Your task to perform on an android device: change the upload size in google photos Image 0: 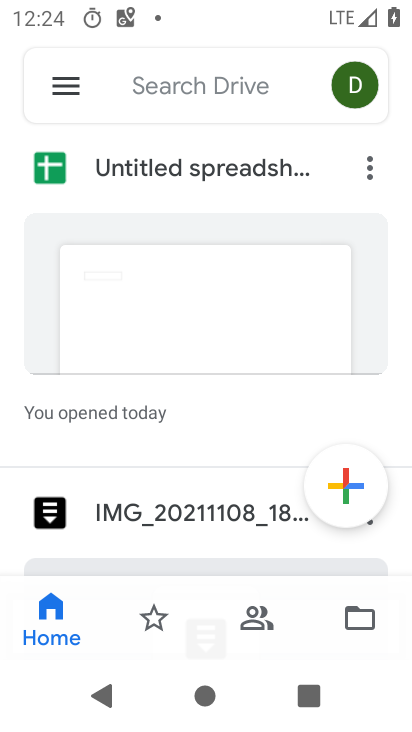
Step 0: press home button
Your task to perform on an android device: change the upload size in google photos Image 1: 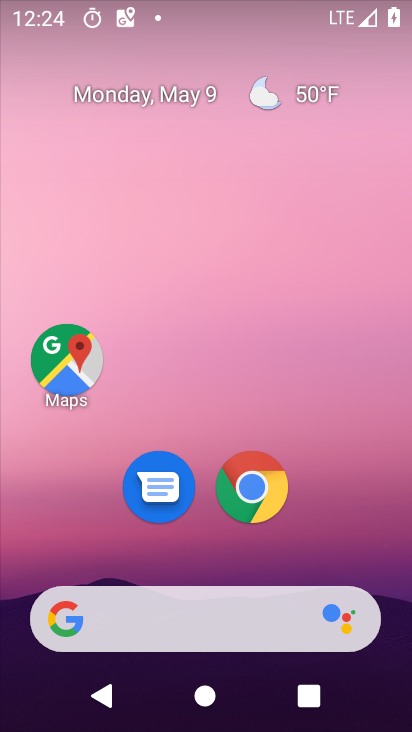
Step 1: drag from (362, 507) to (362, 163)
Your task to perform on an android device: change the upload size in google photos Image 2: 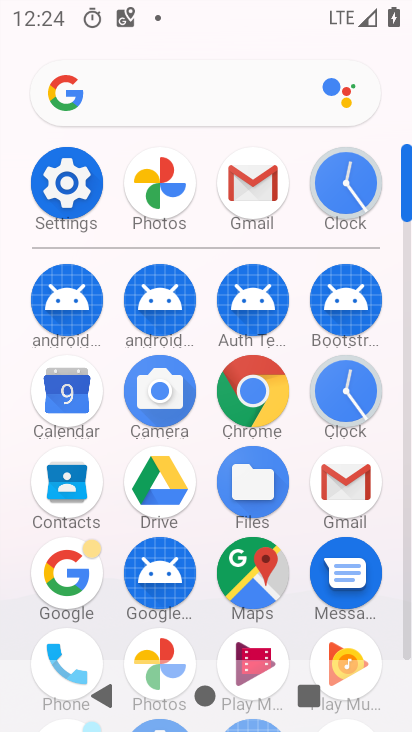
Step 2: click (156, 192)
Your task to perform on an android device: change the upload size in google photos Image 3: 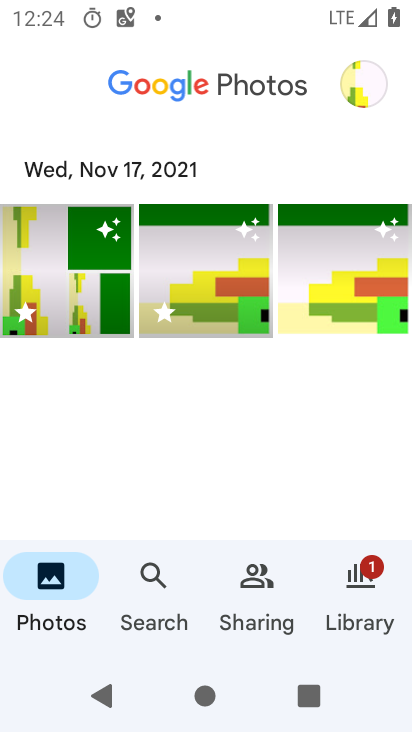
Step 3: drag from (216, 488) to (214, 105)
Your task to perform on an android device: change the upload size in google photos Image 4: 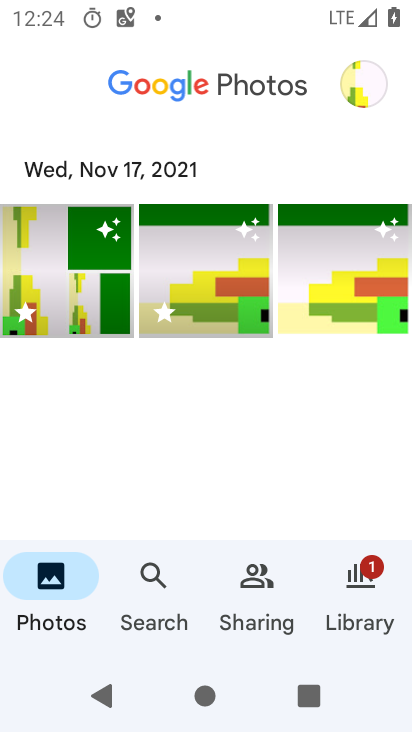
Step 4: click (356, 87)
Your task to perform on an android device: change the upload size in google photos Image 5: 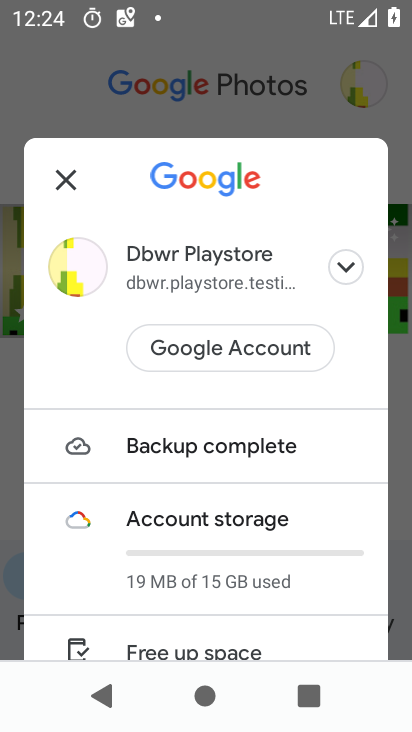
Step 5: click (274, 460)
Your task to perform on an android device: change the upload size in google photos Image 6: 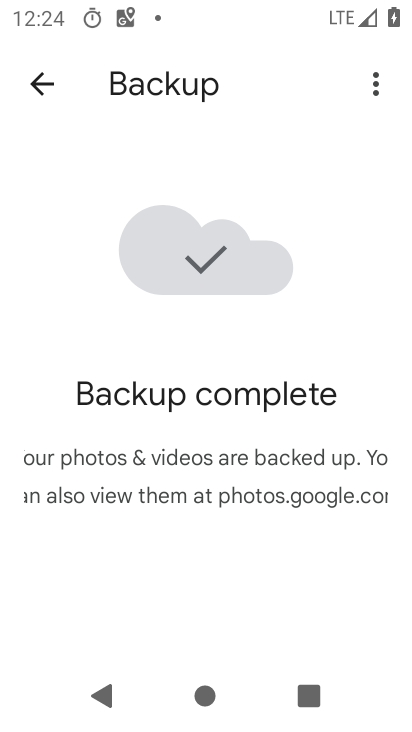
Step 6: click (364, 88)
Your task to perform on an android device: change the upload size in google photos Image 7: 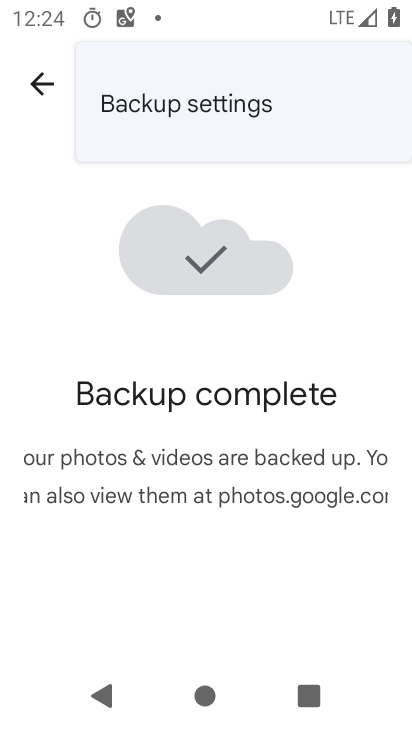
Step 7: click (224, 104)
Your task to perform on an android device: change the upload size in google photos Image 8: 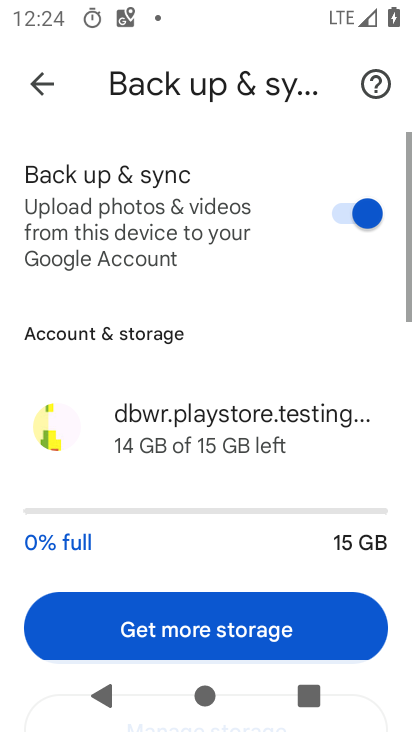
Step 8: drag from (262, 555) to (291, 134)
Your task to perform on an android device: change the upload size in google photos Image 9: 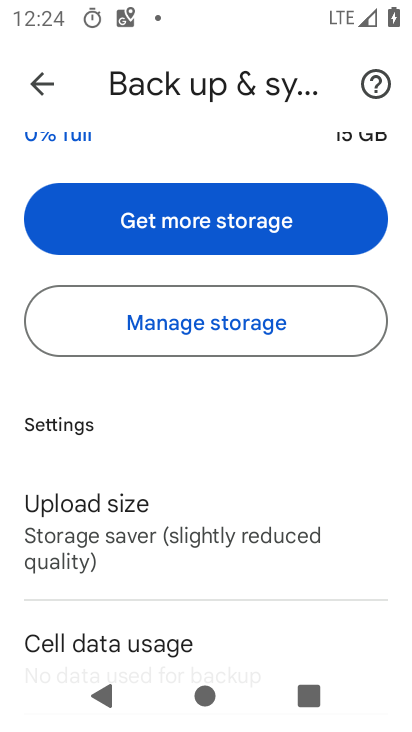
Step 9: click (237, 543)
Your task to perform on an android device: change the upload size in google photos Image 10: 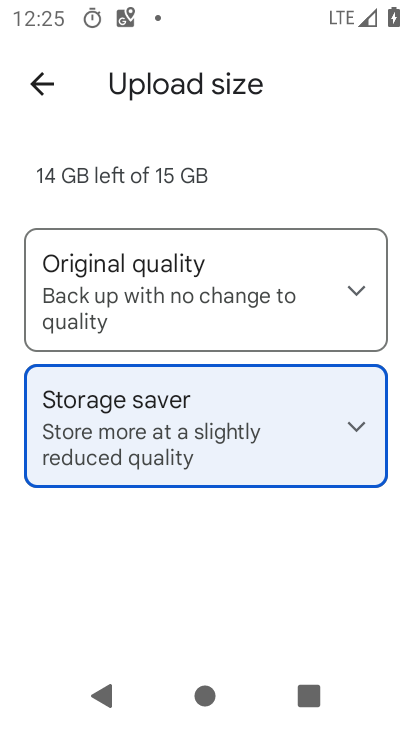
Step 10: click (352, 289)
Your task to perform on an android device: change the upload size in google photos Image 11: 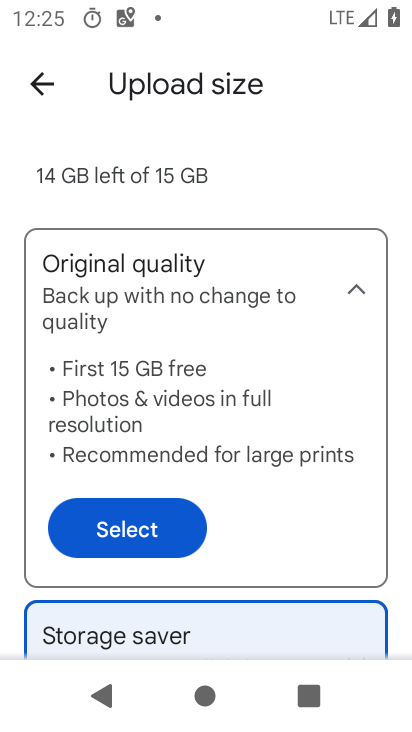
Step 11: click (147, 519)
Your task to perform on an android device: change the upload size in google photos Image 12: 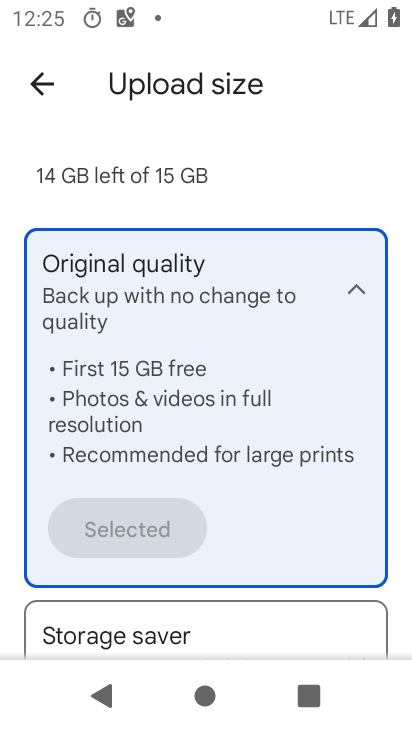
Step 12: task complete